Your task to perform on an android device: Search for seafood restaurants on Google Maps Image 0: 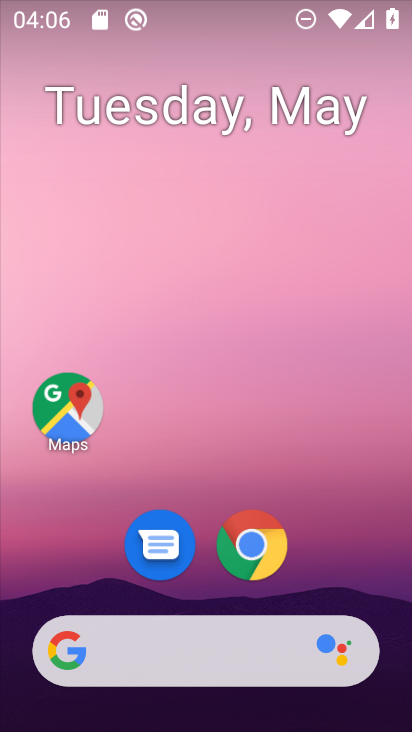
Step 0: click (65, 405)
Your task to perform on an android device: Search for seafood restaurants on Google Maps Image 1: 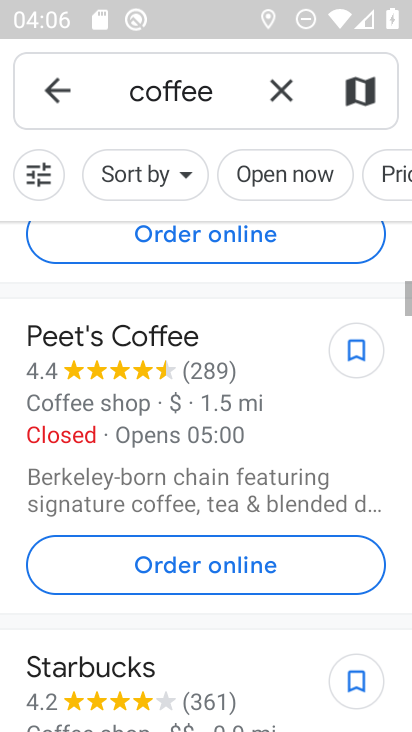
Step 1: click (277, 75)
Your task to perform on an android device: Search for seafood restaurants on Google Maps Image 2: 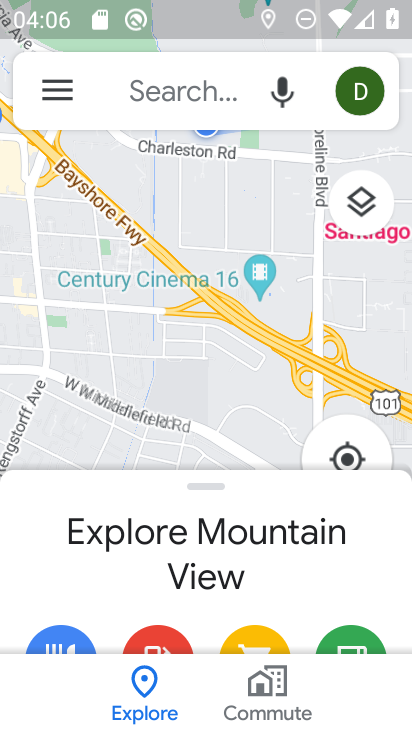
Step 2: click (154, 97)
Your task to perform on an android device: Search for seafood restaurants on Google Maps Image 3: 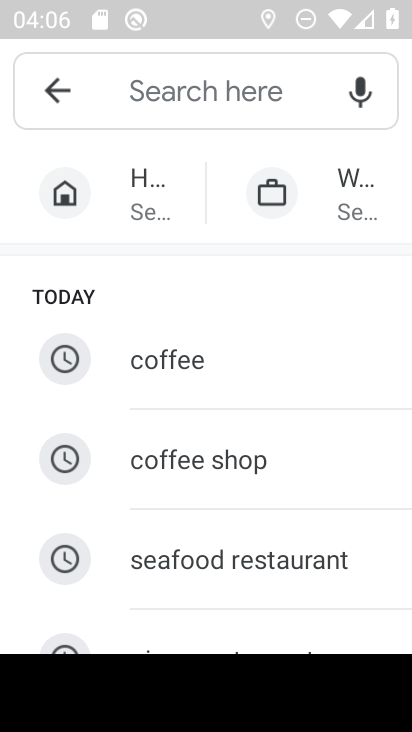
Step 3: type "seafood restaurants"
Your task to perform on an android device: Search for seafood restaurants on Google Maps Image 4: 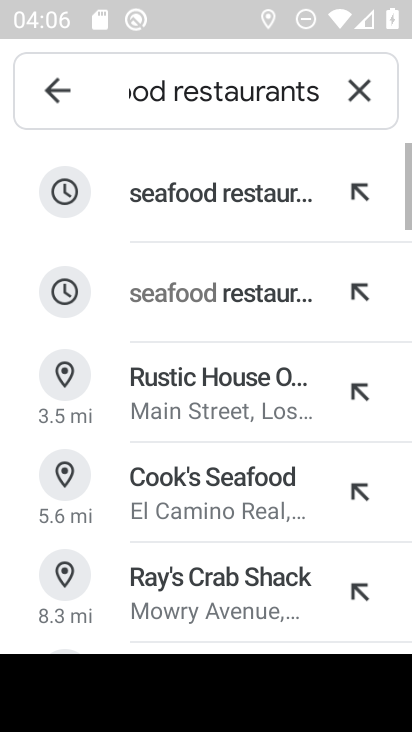
Step 4: click (188, 196)
Your task to perform on an android device: Search for seafood restaurants on Google Maps Image 5: 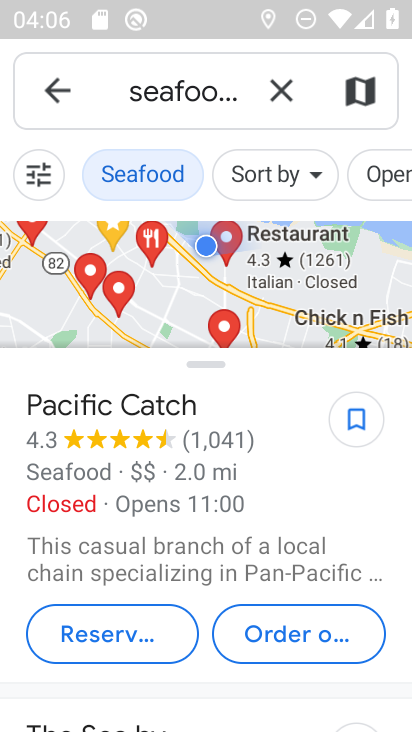
Step 5: task complete